Your task to perform on an android device: Open settings on Google Maps Image 0: 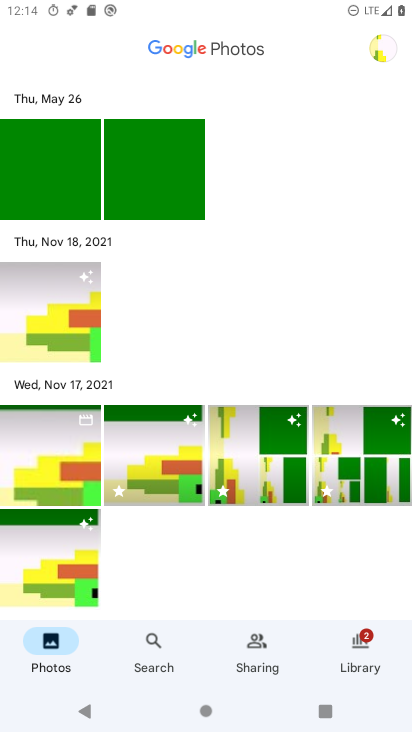
Step 0: press home button
Your task to perform on an android device: Open settings on Google Maps Image 1: 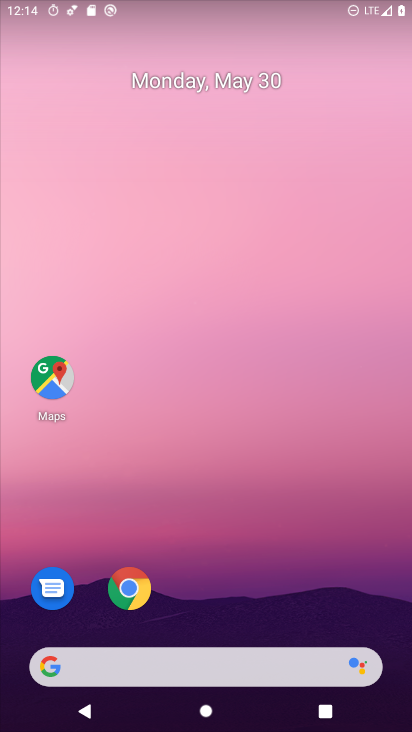
Step 1: drag from (289, 563) to (357, 81)
Your task to perform on an android device: Open settings on Google Maps Image 2: 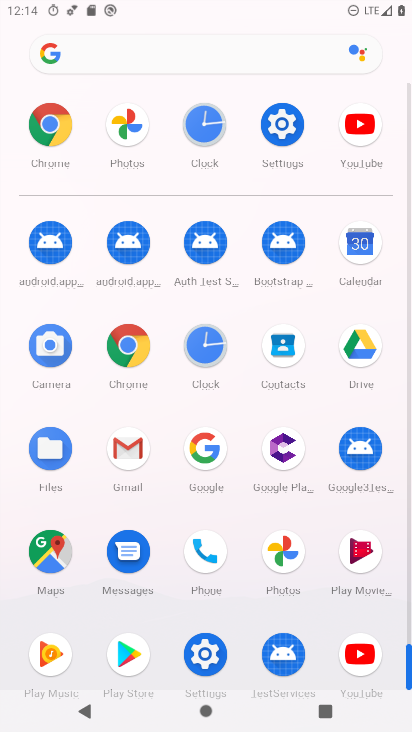
Step 2: click (54, 563)
Your task to perform on an android device: Open settings on Google Maps Image 3: 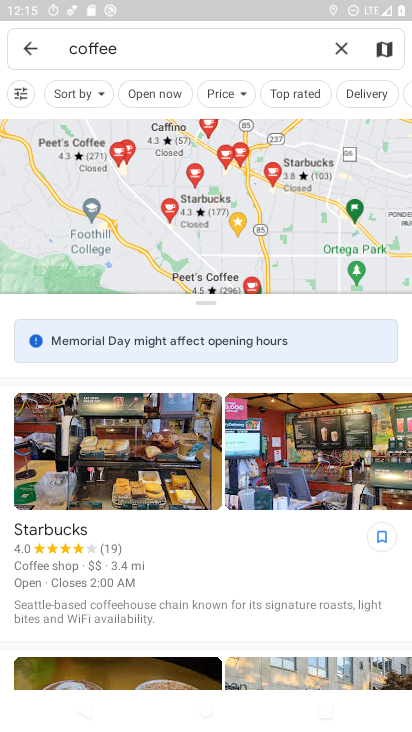
Step 3: click (40, 50)
Your task to perform on an android device: Open settings on Google Maps Image 4: 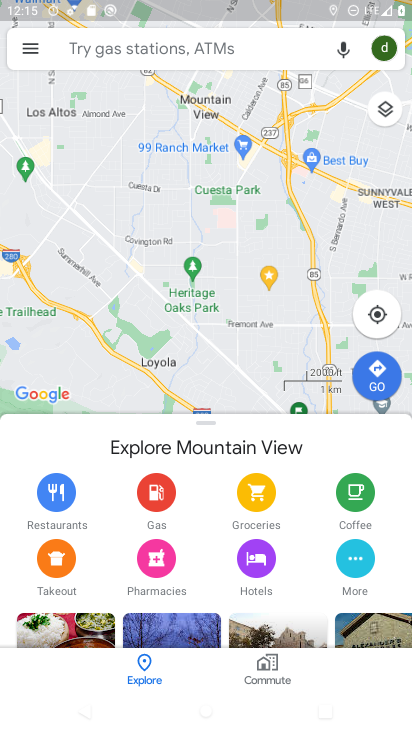
Step 4: click (35, 52)
Your task to perform on an android device: Open settings on Google Maps Image 5: 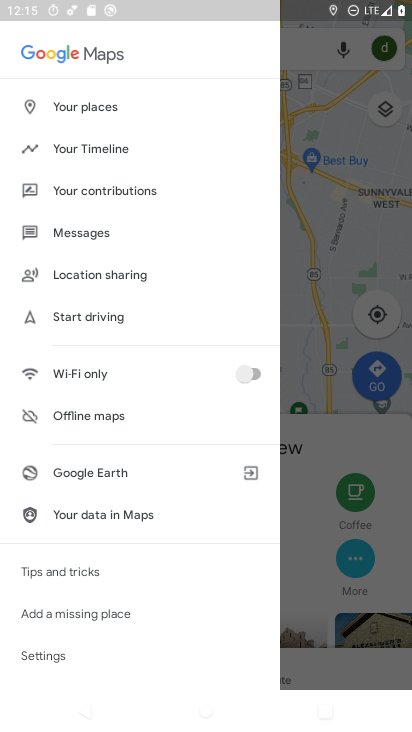
Step 5: click (74, 658)
Your task to perform on an android device: Open settings on Google Maps Image 6: 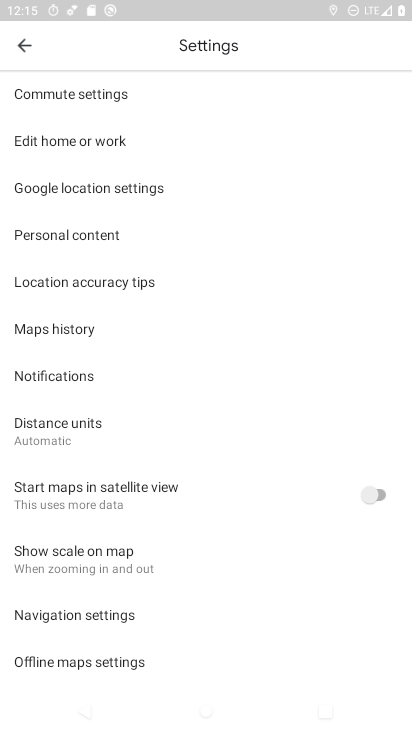
Step 6: task complete